Your task to perform on an android device: change the clock style Image 0: 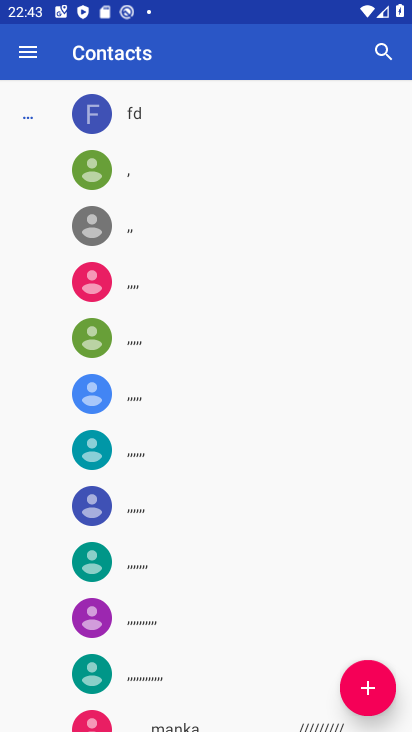
Step 0: press home button
Your task to perform on an android device: change the clock style Image 1: 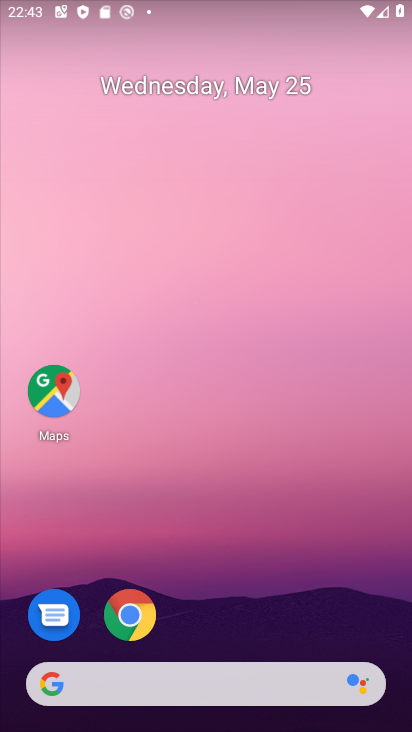
Step 1: drag from (246, 559) to (247, 142)
Your task to perform on an android device: change the clock style Image 2: 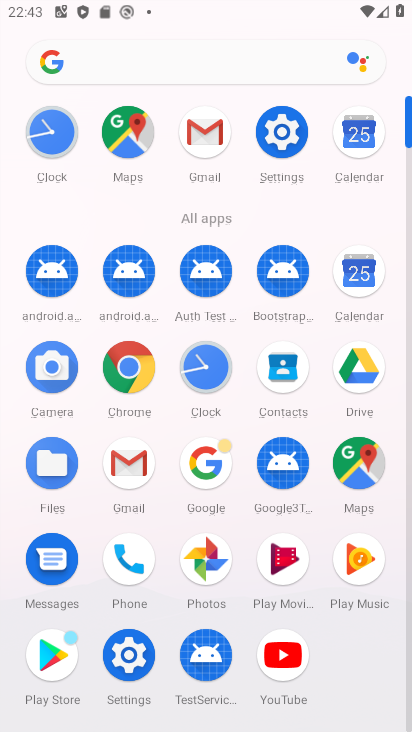
Step 2: click (203, 361)
Your task to perform on an android device: change the clock style Image 3: 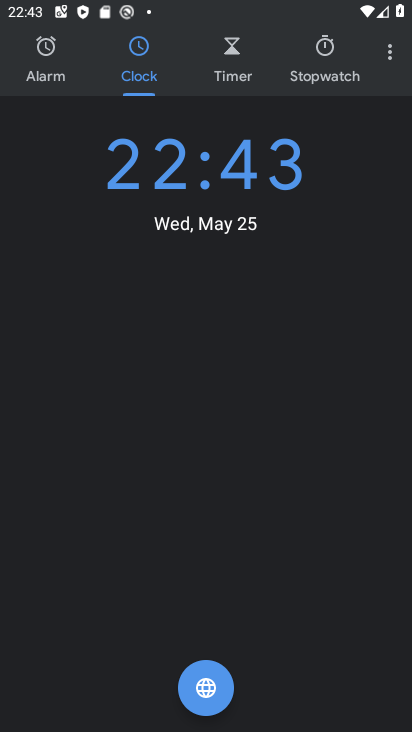
Step 3: click (385, 51)
Your task to perform on an android device: change the clock style Image 4: 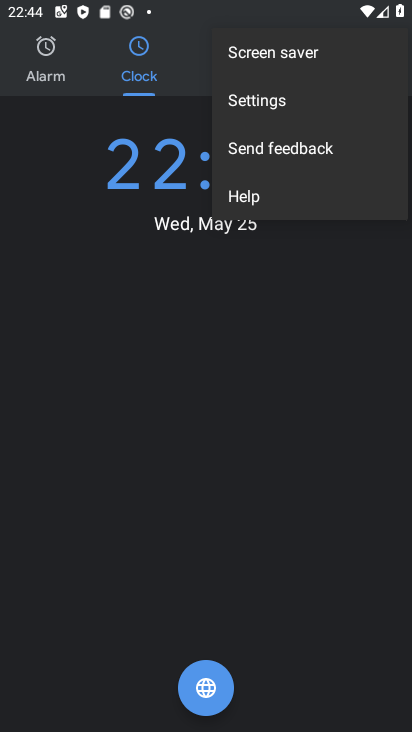
Step 4: click (249, 108)
Your task to perform on an android device: change the clock style Image 5: 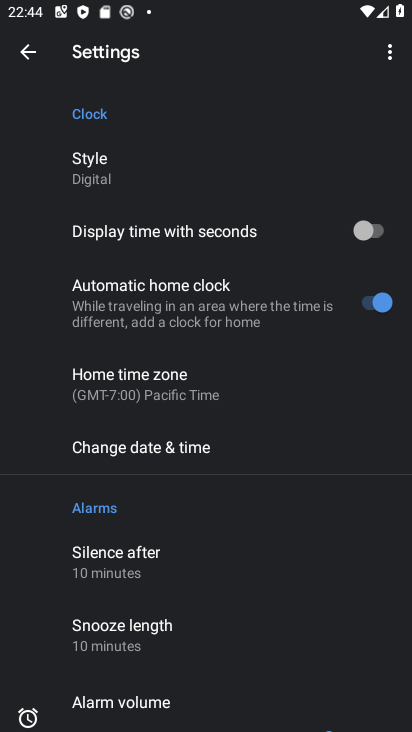
Step 5: click (85, 168)
Your task to perform on an android device: change the clock style Image 6: 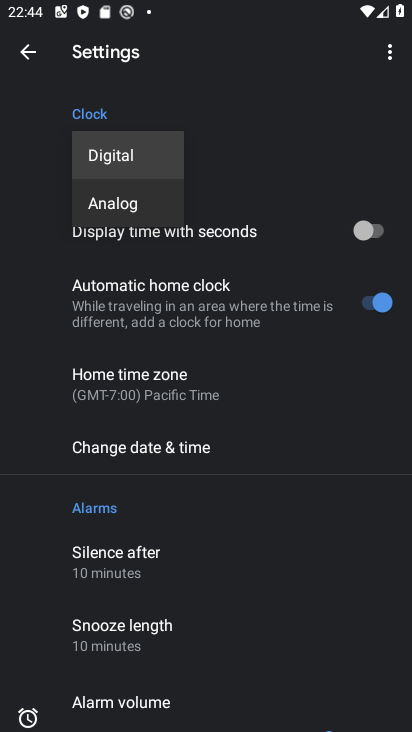
Step 6: click (115, 160)
Your task to perform on an android device: change the clock style Image 7: 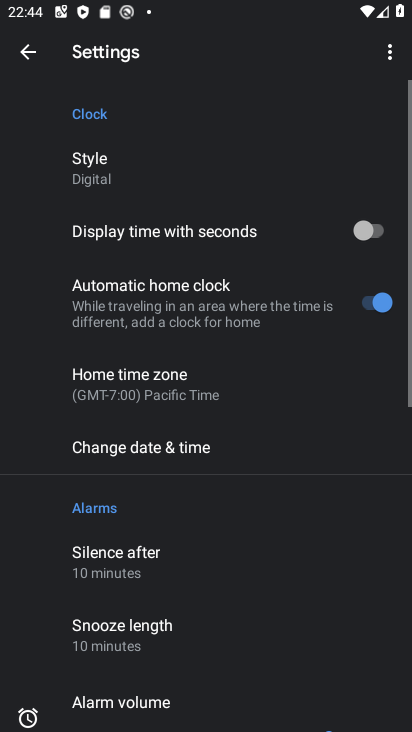
Step 7: click (115, 160)
Your task to perform on an android device: change the clock style Image 8: 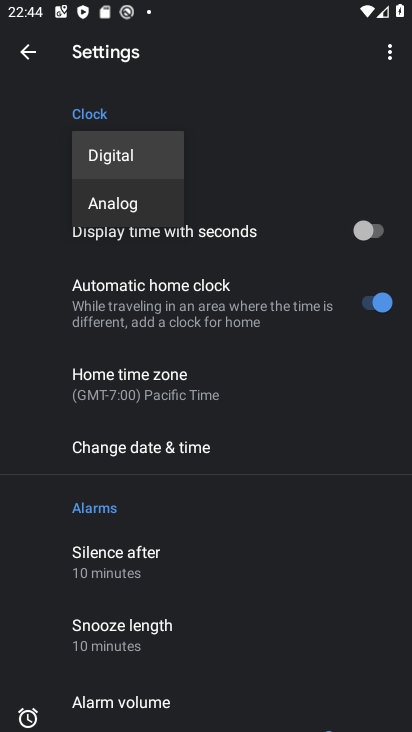
Step 8: click (137, 204)
Your task to perform on an android device: change the clock style Image 9: 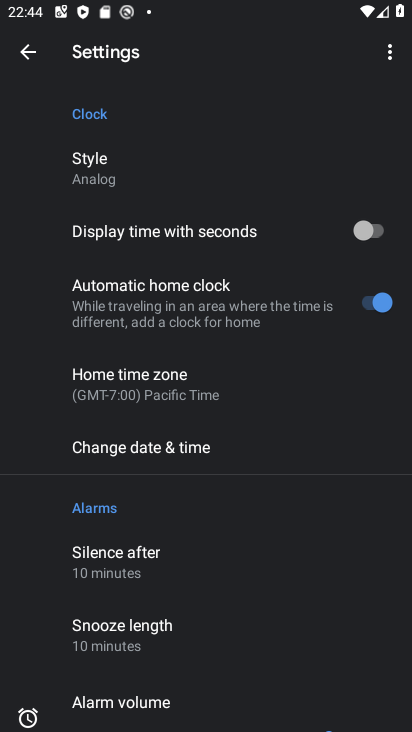
Step 9: task complete